Your task to perform on an android device: Open wifi settings Image 0: 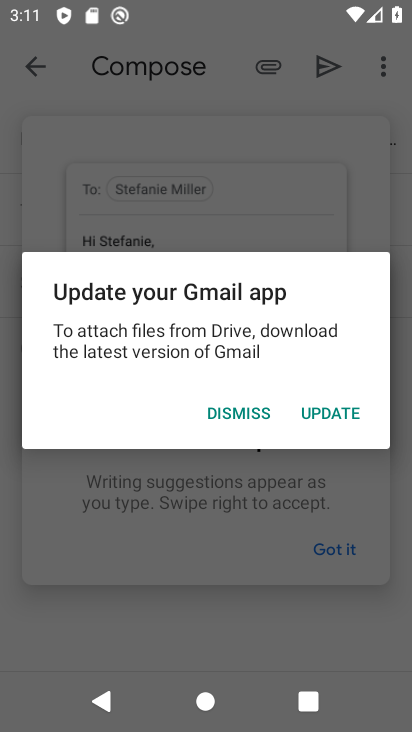
Step 0: press home button
Your task to perform on an android device: Open wifi settings Image 1: 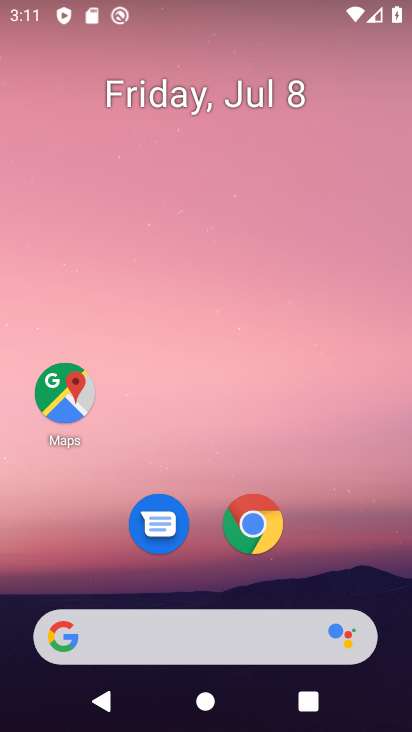
Step 1: drag from (314, 577) to (338, 0)
Your task to perform on an android device: Open wifi settings Image 2: 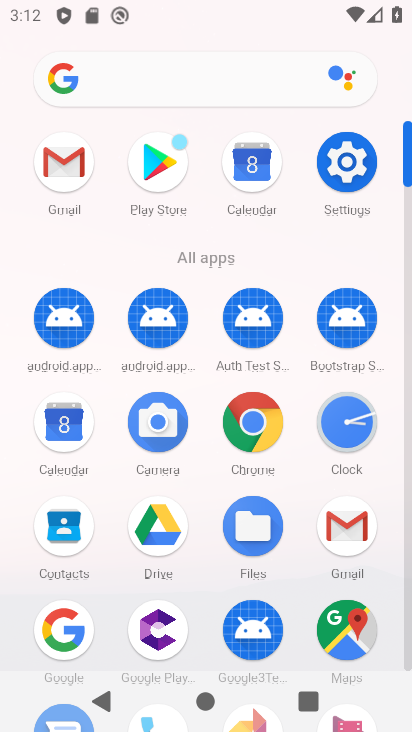
Step 2: click (354, 164)
Your task to perform on an android device: Open wifi settings Image 3: 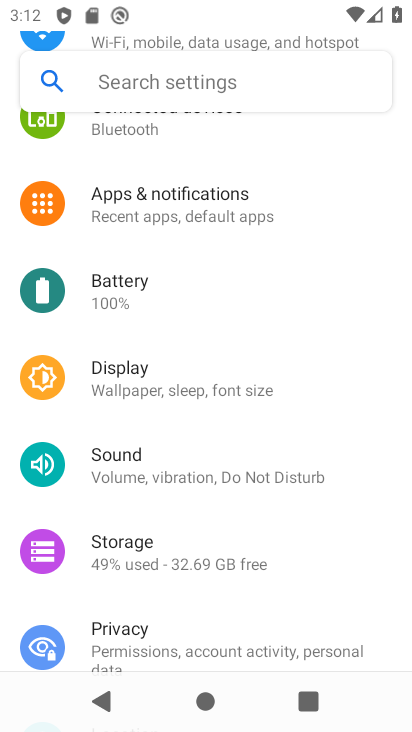
Step 3: drag from (233, 284) to (247, 631)
Your task to perform on an android device: Open wifi settings Image 4: 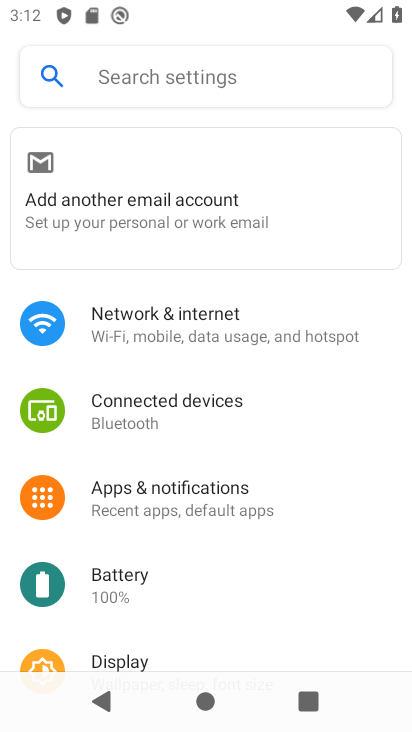
Step 4: click (220, 328)
Your task to perform on an android device: Open wifi settings Image 5: 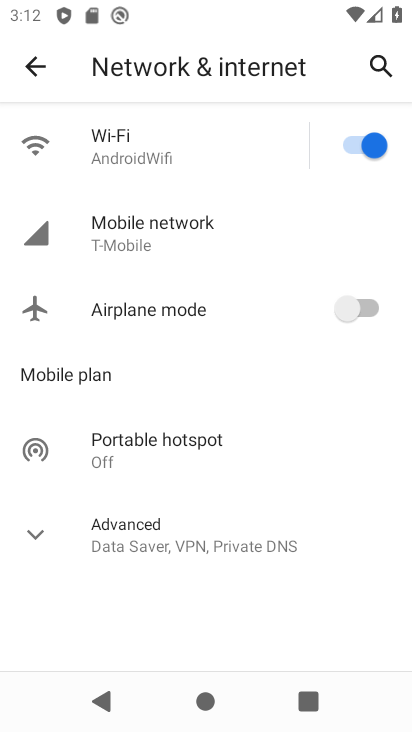
Step 5: click (143, 149)
Your task to perform on an android device: Open wifi settings Image 6: 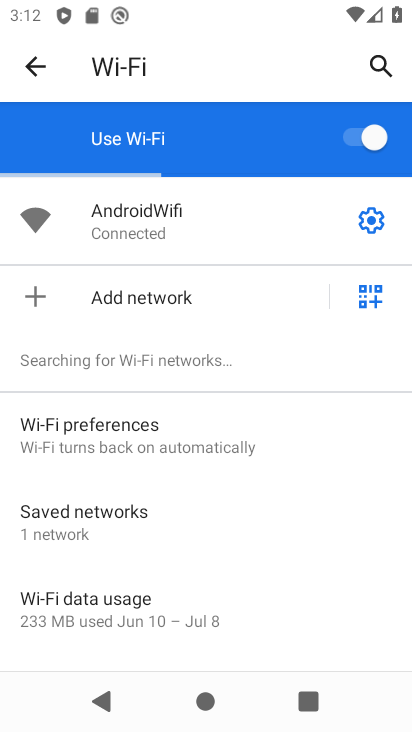
Step 6: task complete